Your task to perform on an android device: Set the phone to "Do not disturb". Image 0: 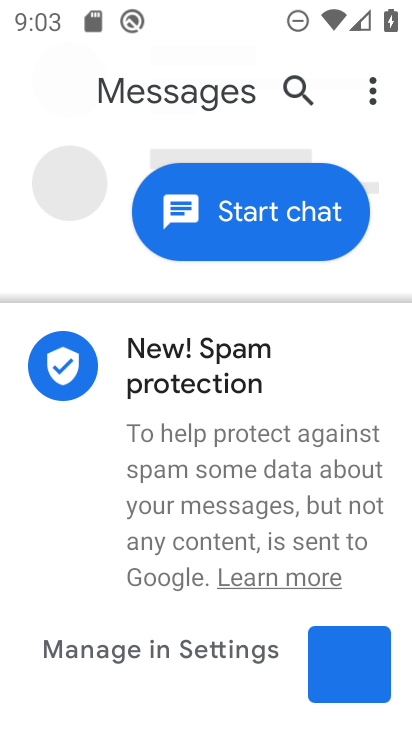
Step 0: press back button
Your task to perform on an android device: Set the phone to "Do not disturb". Image 1: 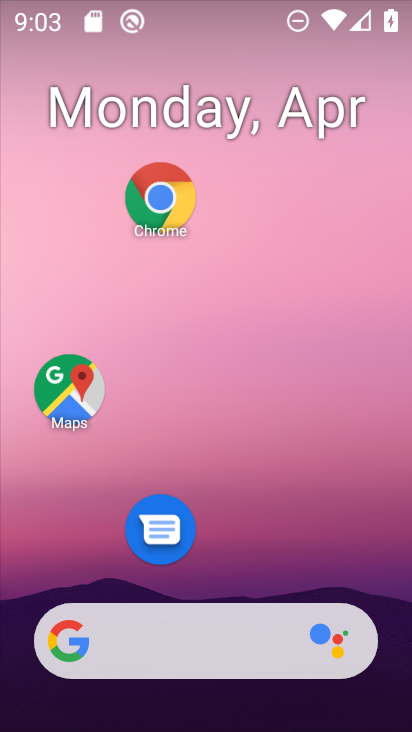
Step 1: task complete